Your task to perform on an android device: check google app version Image 0: 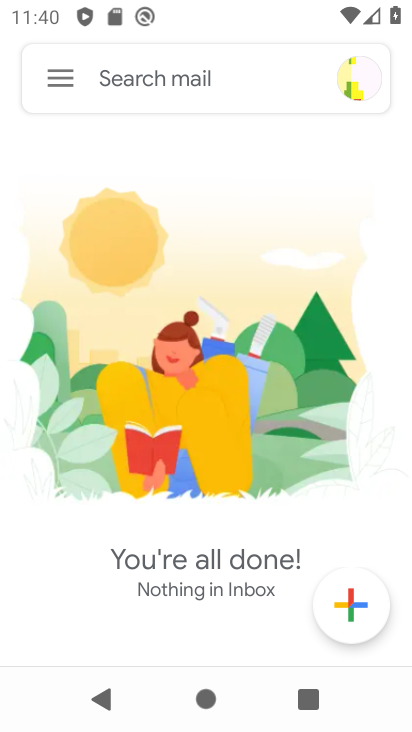
Step 0: press home button
Your task to perform on an android device: check google app version Image 1: 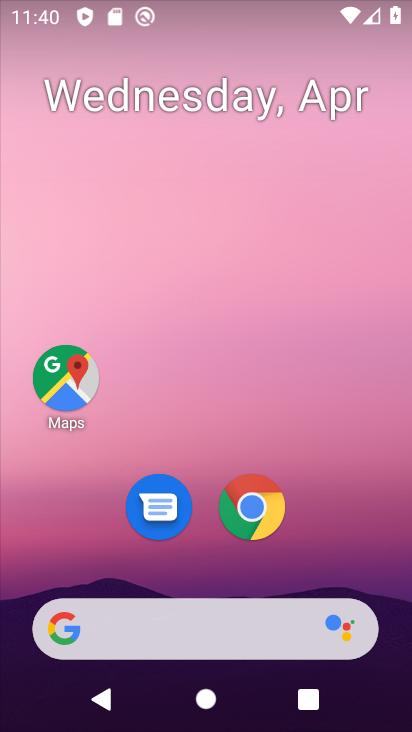
Step 1: drag from (339, 499) to (271, 82)
Your task to perform on an android device: check google app version Image 2: 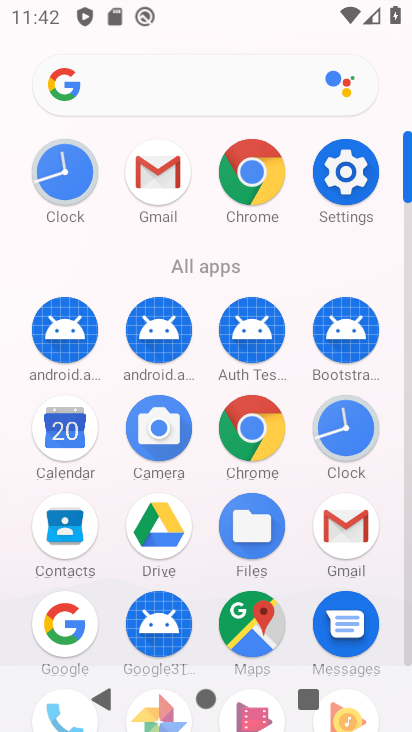
Step 2: click (63, 623)
Your task to perform on an android device: check google app version Image 3: 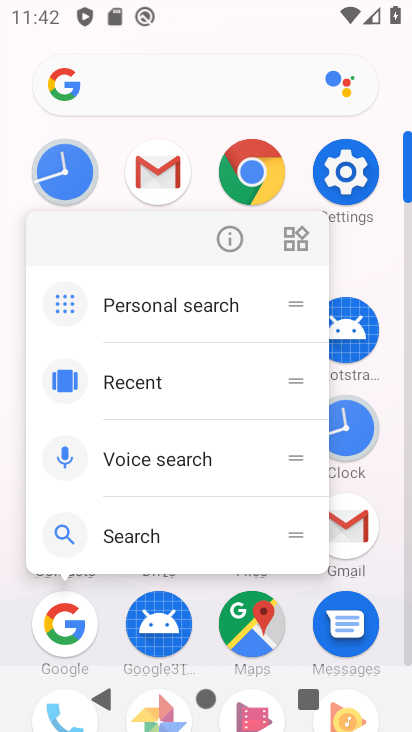
Step 3: click (239, 240)
Your task to perform on an android device: check google app version Image 4: 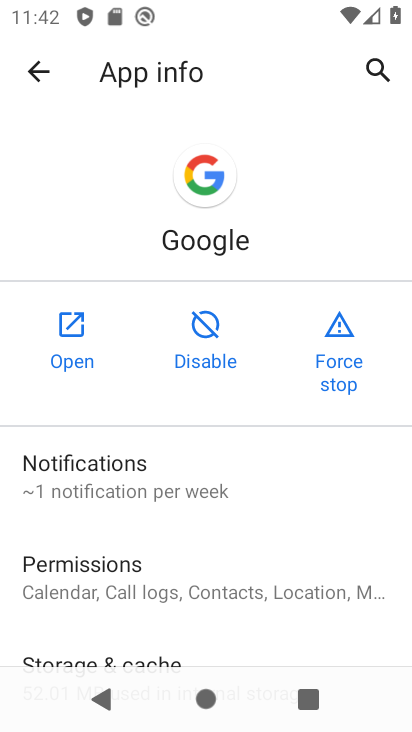
Step 4: drag from (76, 625) to (268, 73)
Your task to perform on an android device: check google app version Image 5: 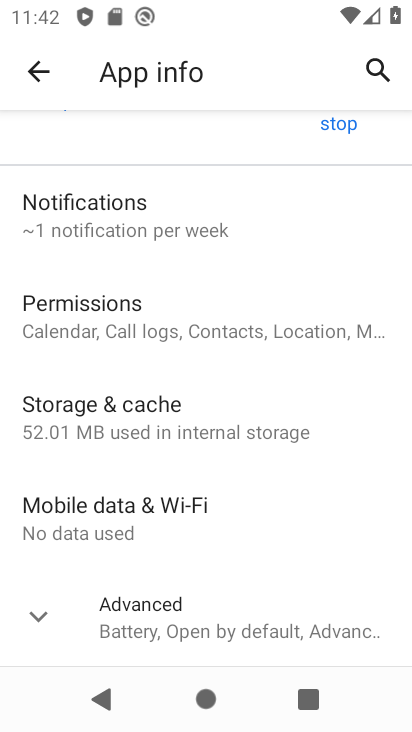
Step 5: click (91, 608)
Your task to perform on an android device: check google app version Image 6: 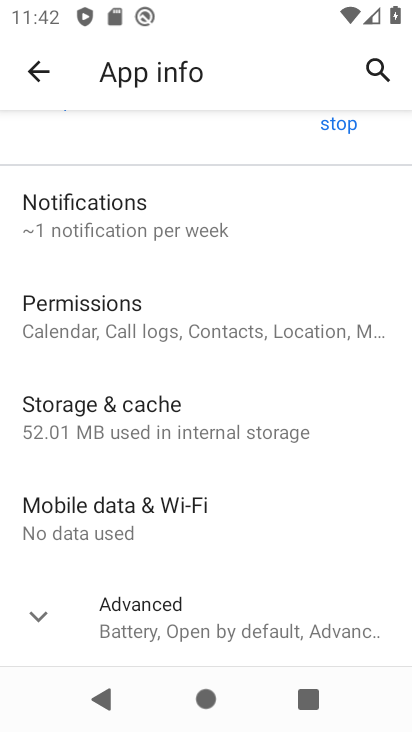
Step 6: task complete